Your task to perform on an android device: see tabs open on other devices in the chrome app Image 0: 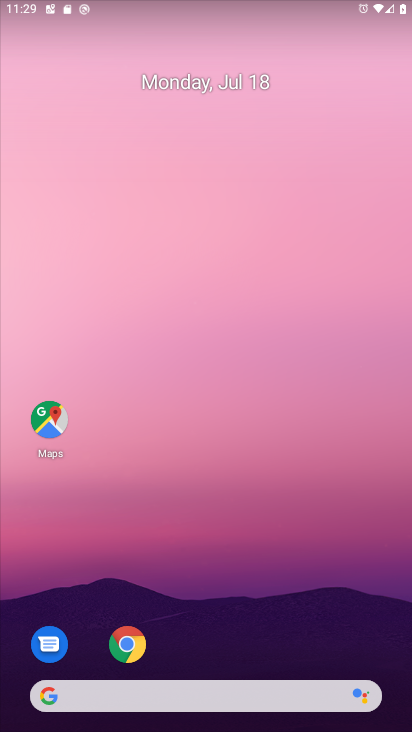
Step 0: click (111, 645)
Your task to perform on an android device: see tabs open on other devices in the chrome app Image 1: 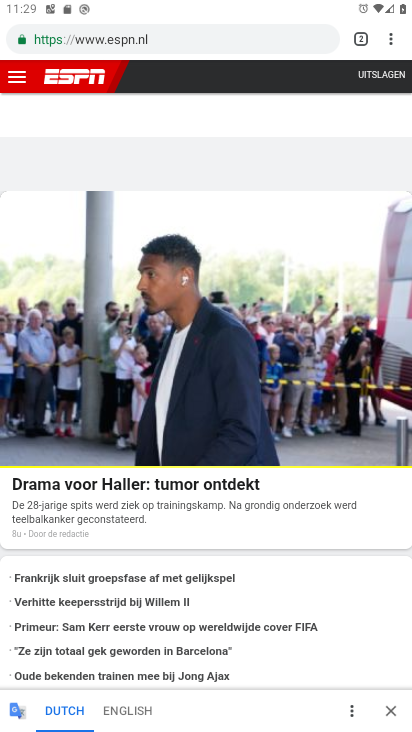
Step 1: click (387, 41)
Your task to perform on an android device: see tabs open on other devices in the chrome app Image 2: 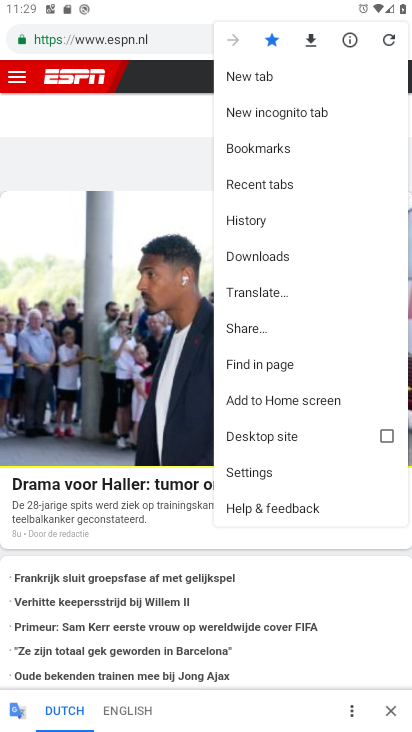
Step 2: click (292, 467)
Your task to perform on an android device: see tabs open on other devices in the chrome app Image 3: 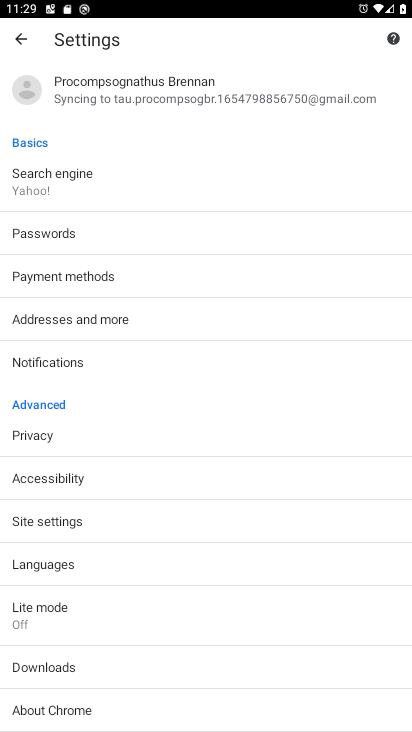
Step 3: task complete